Your task to perform on an android device: turn off data saver in the chrome app Image 0: 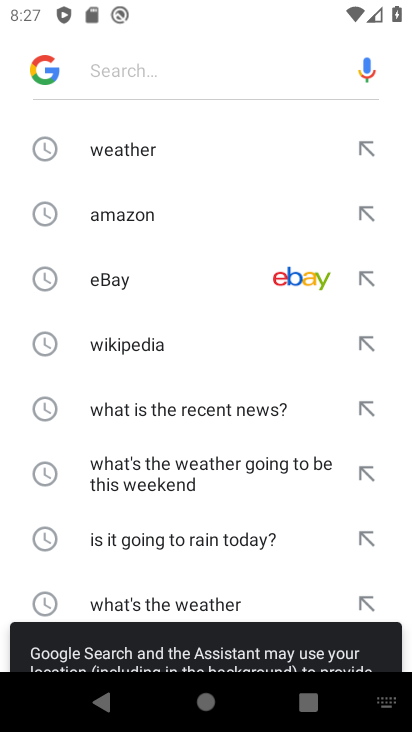
Step 0: press back button
Your task to perform on an android device: turn off data saver in the chrome app Image 1: 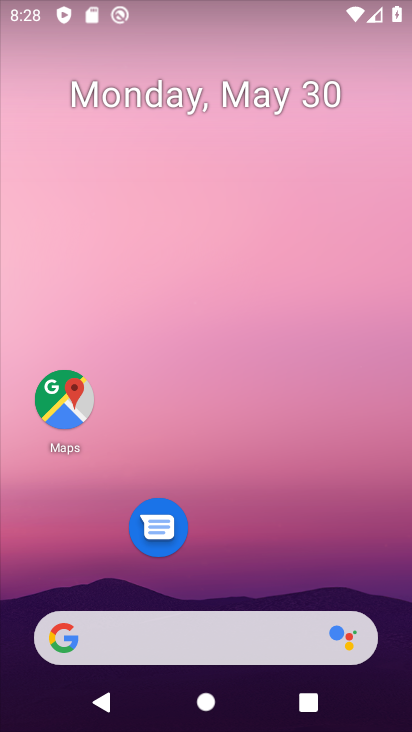
Step 1: drag from (267, 577) to (265, 58)
Your task to perform on an android device: turn off data saver in the chrome app Image 2: 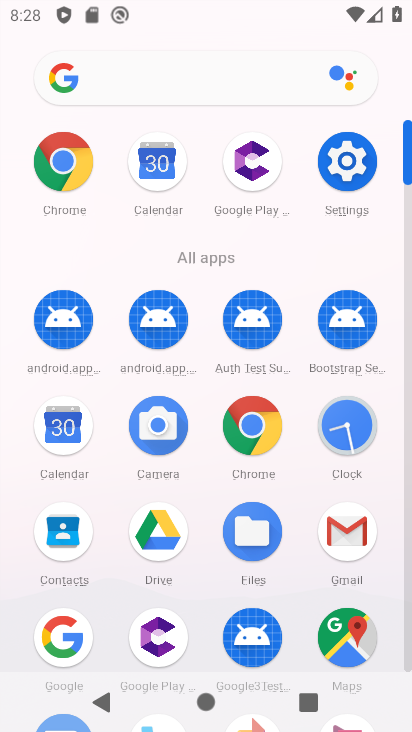
Step 2: click (63, 162)
Your task to perform on an android device: turn off data saver in the chrome app Image 3: 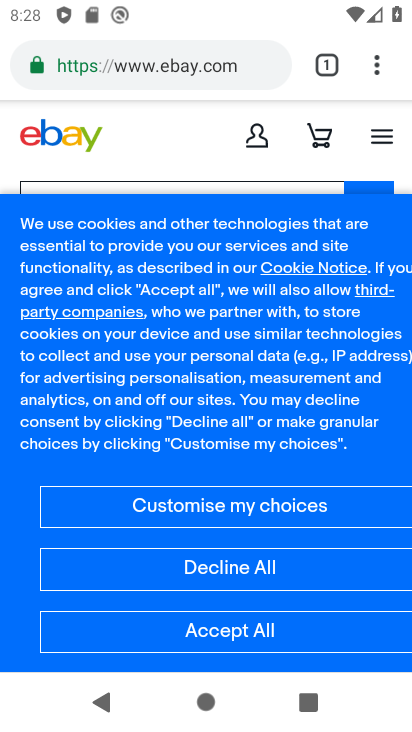
Step 3: click (373, 58)
Your task to perform on an android device: turn off data saver in the chrome app Image 4: 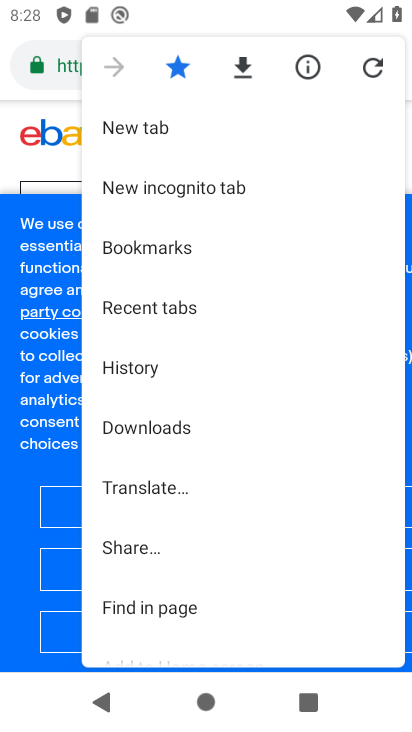
Step 4: drag from (139, 568) to (153, 205)
Your task to perform on an android device: turn off data saver in the chrome app Image 5: 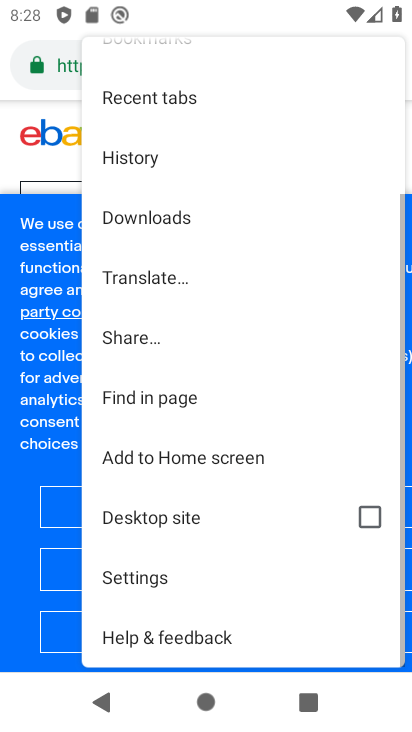
Step 5: click (144, 581)
Your task to perform on an android device: turn off data saver in the chrome app Image 6: 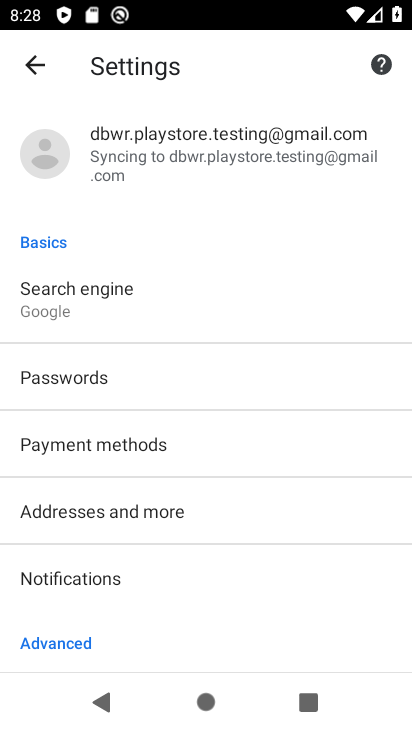
Step 6: drag from (109, 569) to (107, 289)
Your task to perform on an android device: turn off data saver in the chrome app Image 7: 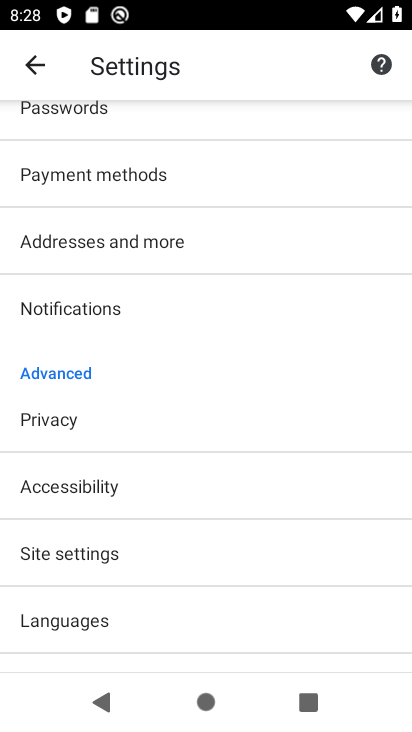
Step 7: drag from (92, 620) to (93, 352)
Your task to perform on an android device: turn off data saver in the chrome app Image 8: 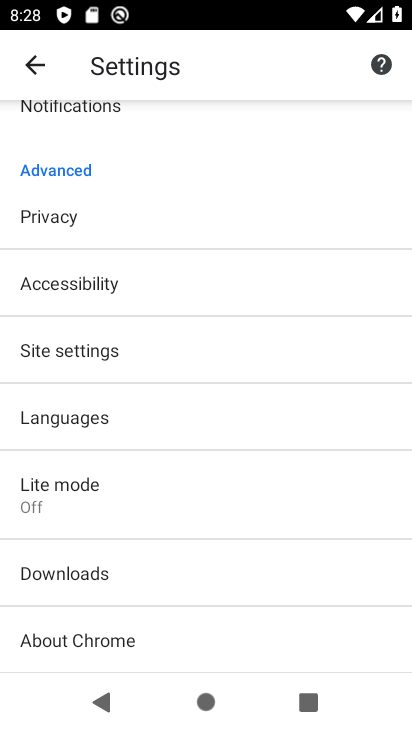
Step 8: click (63, 501)
Your task to perform on an android device: turn off data saver in the chrome app Image 9: 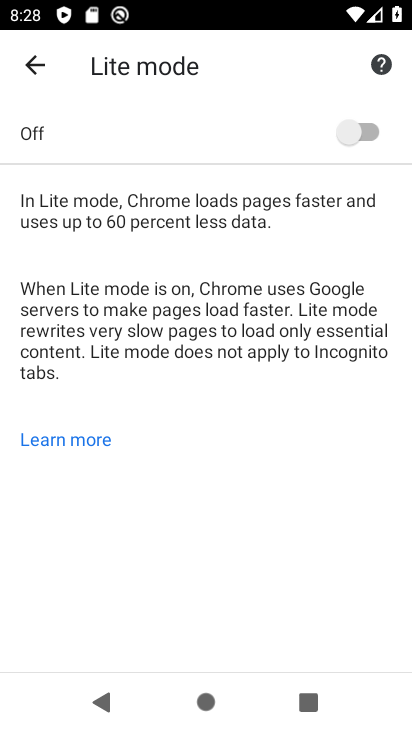
Step 9: task complete